Your task to perform on an android device: empty trash in the gmail app Image 0: 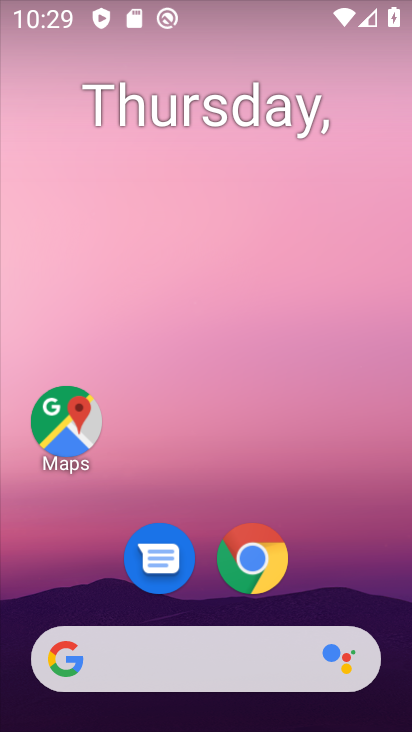
Step 0: press home button
Your task to perform on an android device: empty trash in the gmail app Image 1: 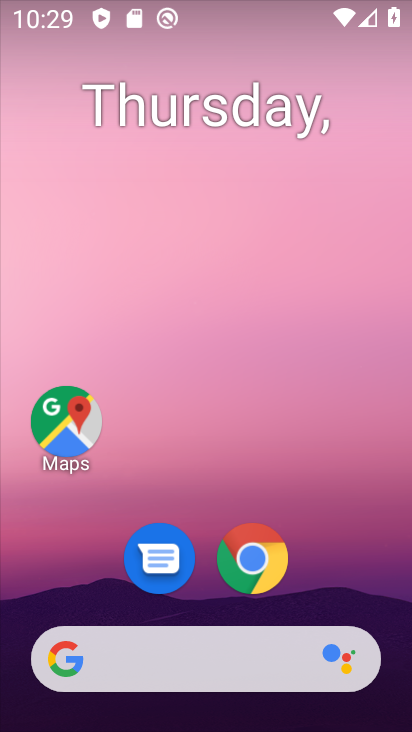
Step 1: drag from (345, 540) to (316, 89)
Your task to perform on an android device: empty trash in the gmail app Image 2: 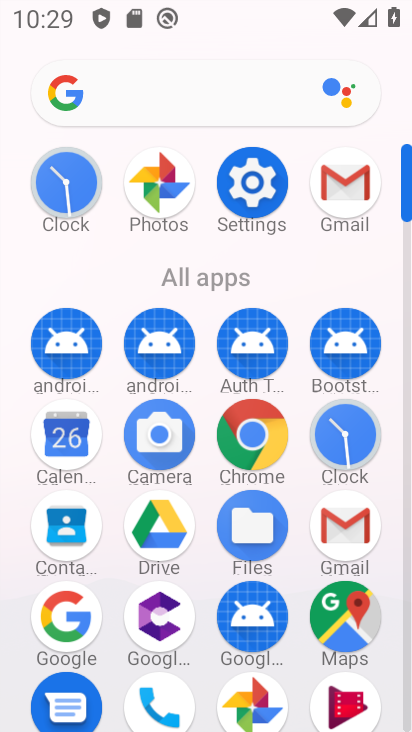
Step 2: click (337, 523)
Your task to perform on an android device: empty trash in the gmail app Image 3: 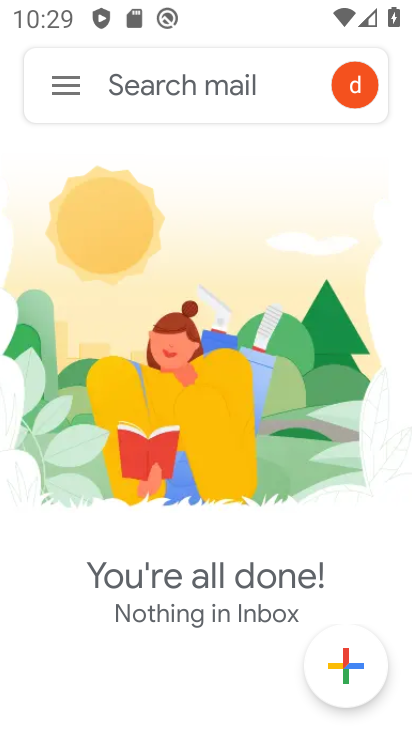
Step 3: click (62, 71)
Your task to perform on an android device: empty trash in the gmail app Image 4: 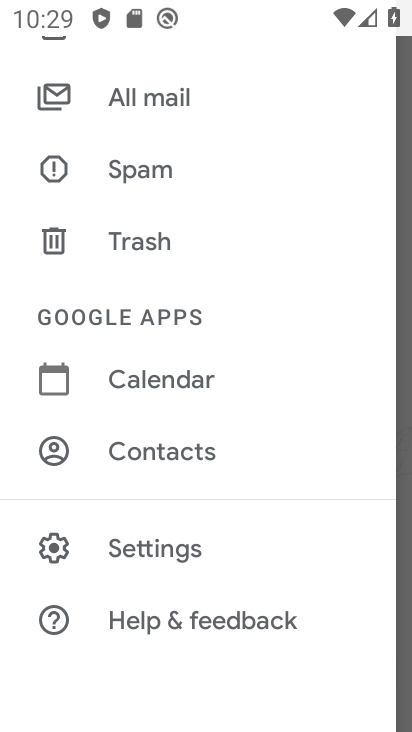
Step 4: drag from (187, 127) to (229, 377)
Your task to perform on an android device: empty trash in the gmail app Image 5: 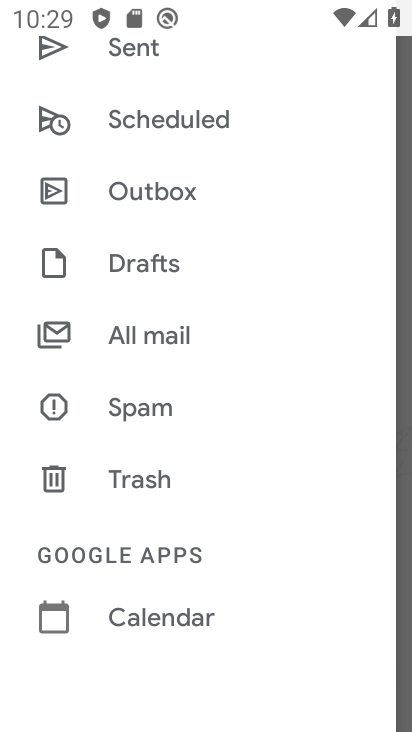
Step 5: click (129, 479)
Your task to perform on an android device: empty trash in the gmail app Image 6: 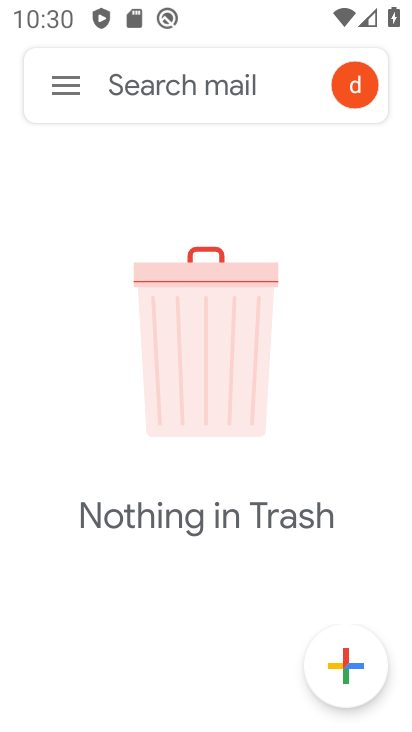
Step 6: task complete